Your task to perform on an android device: Open wifi settings Image 0: 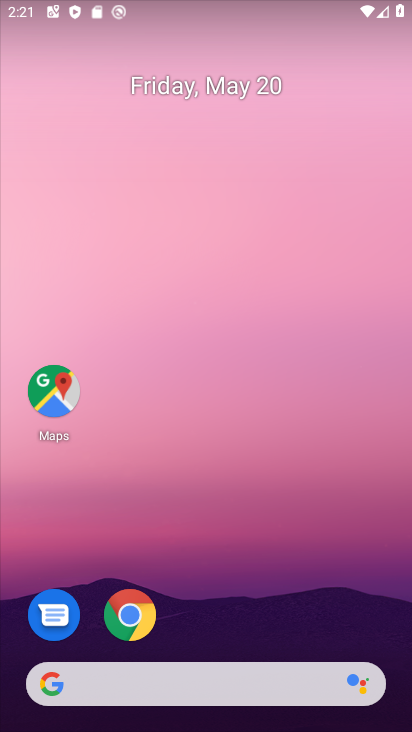
Step 0: drag from (235, 628) to (242, 301)
Your task to perform on an android device: Open wifi settings Image 1: 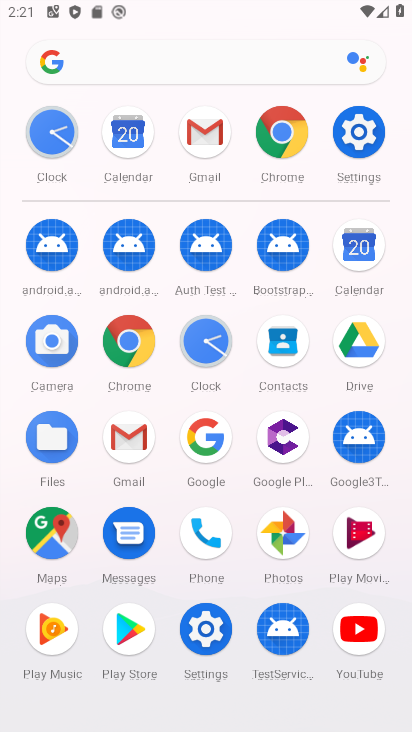
Step 1: click (348, 126)
Your task to perform on an android device: Open wifi settings Image 2: 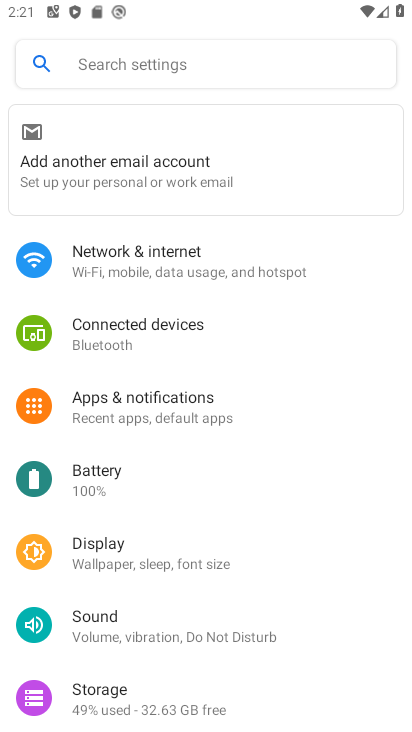
Step 2: click (199, 272)
Your task to perform on an android device: Open wifi settings Image 3: 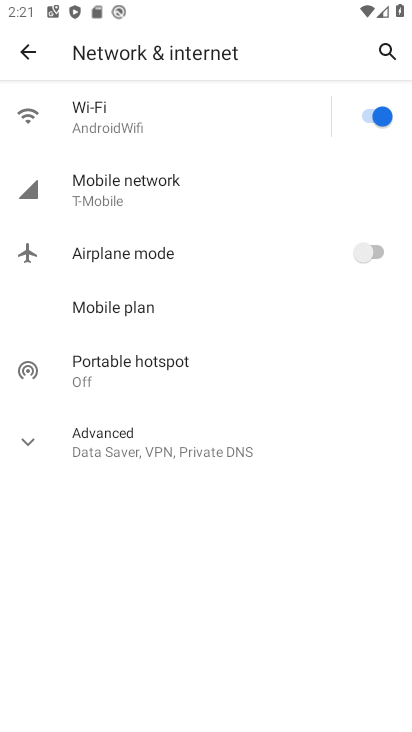
Step 3: click (151, 120)
Your task to perform on an android device: Open wifi settings Image 4: 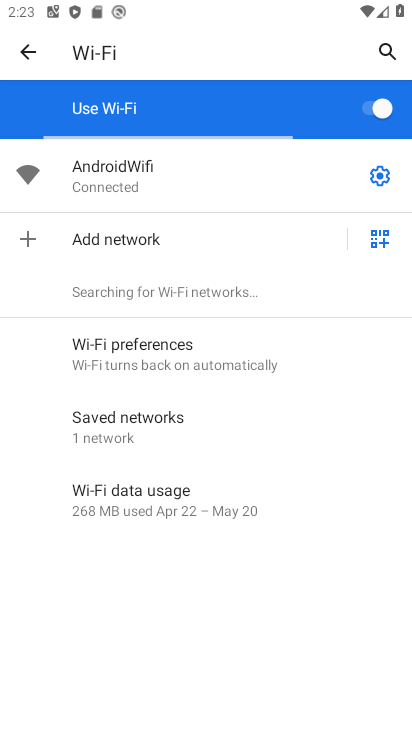
Step 4: click (177, 346)
Your task to perform on an android device: Open wifi settings Image 5: 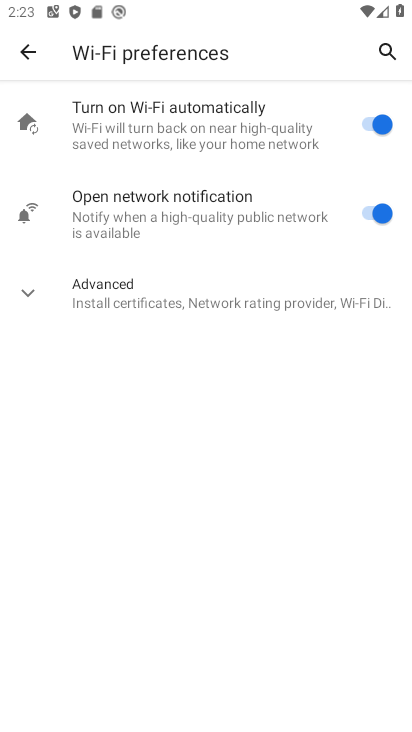
Step 5: task complete